Your task to perform on an android device: Open Google Image 0: 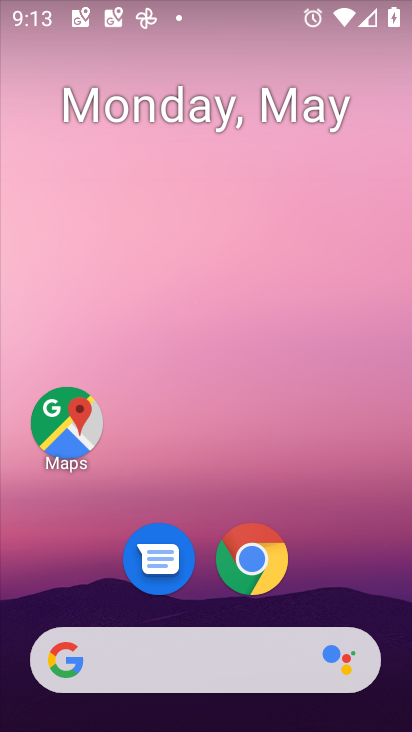
Step 0: drag from (395, 671) to (387, 511)
Your task to perform on an android device: Open Google Image 1: 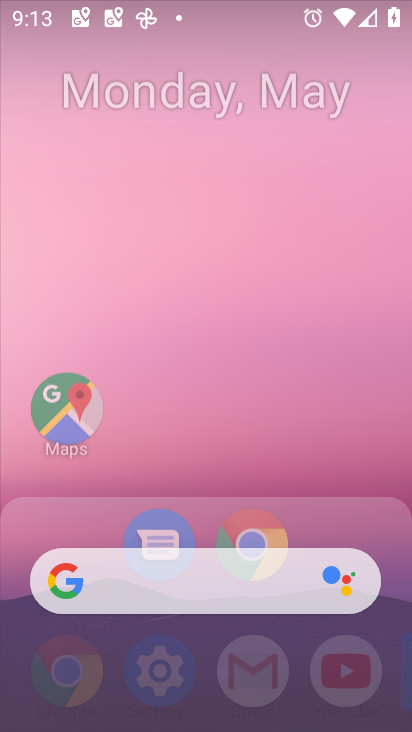
Step 1: drag from (371, 358) to (253, 48)
Your task to perform on an android device: Open Google Image 2: 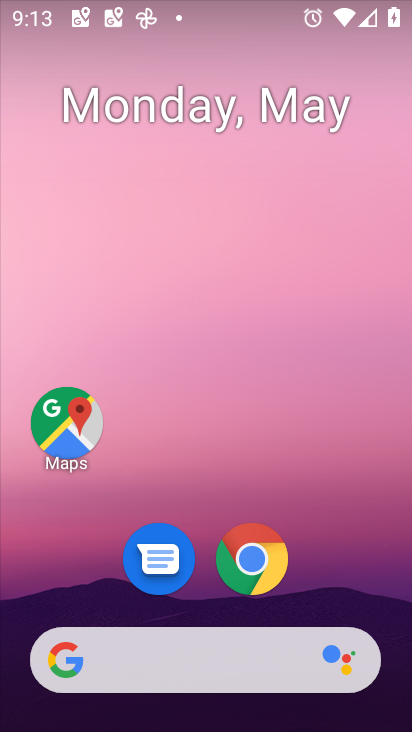
Step 2: drag from (301, 572) to (290, 218)
Your task to perform on an android device: Open Google Image 3: 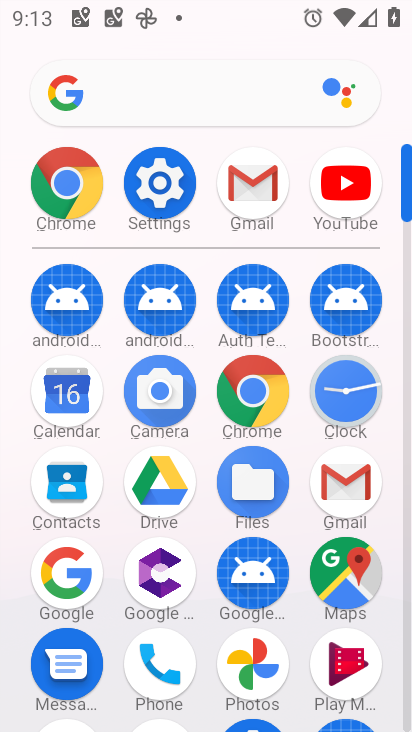
Step 3: click (62, 587)
Your task to perform on an android device: Open Google Image 4: 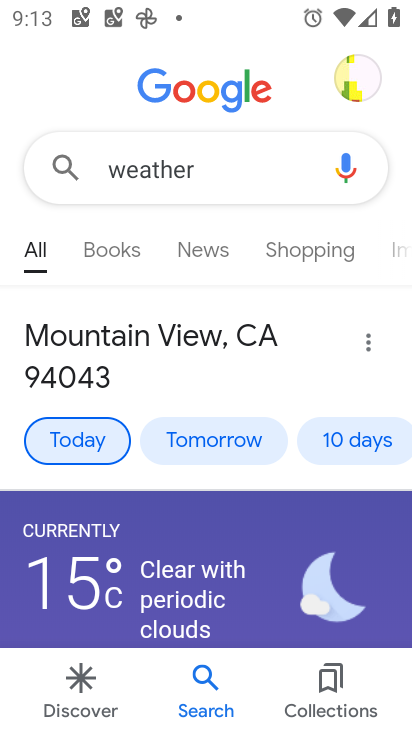
Step 4: task complete